Your task to perform on an android device: install app "Move to iOS" Image 0: 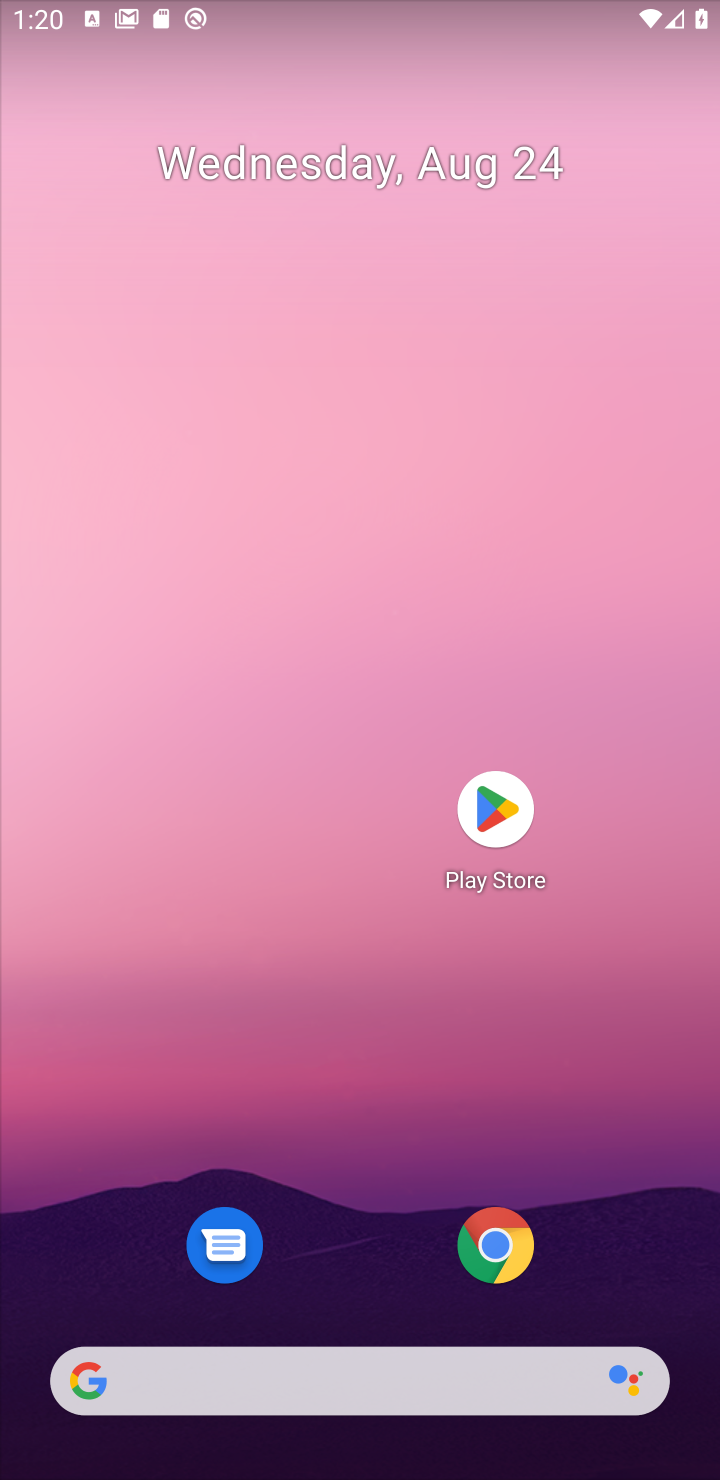
Step 0: press enter
Your task to perform on an android device: install app "Move to iOS" Image 1: 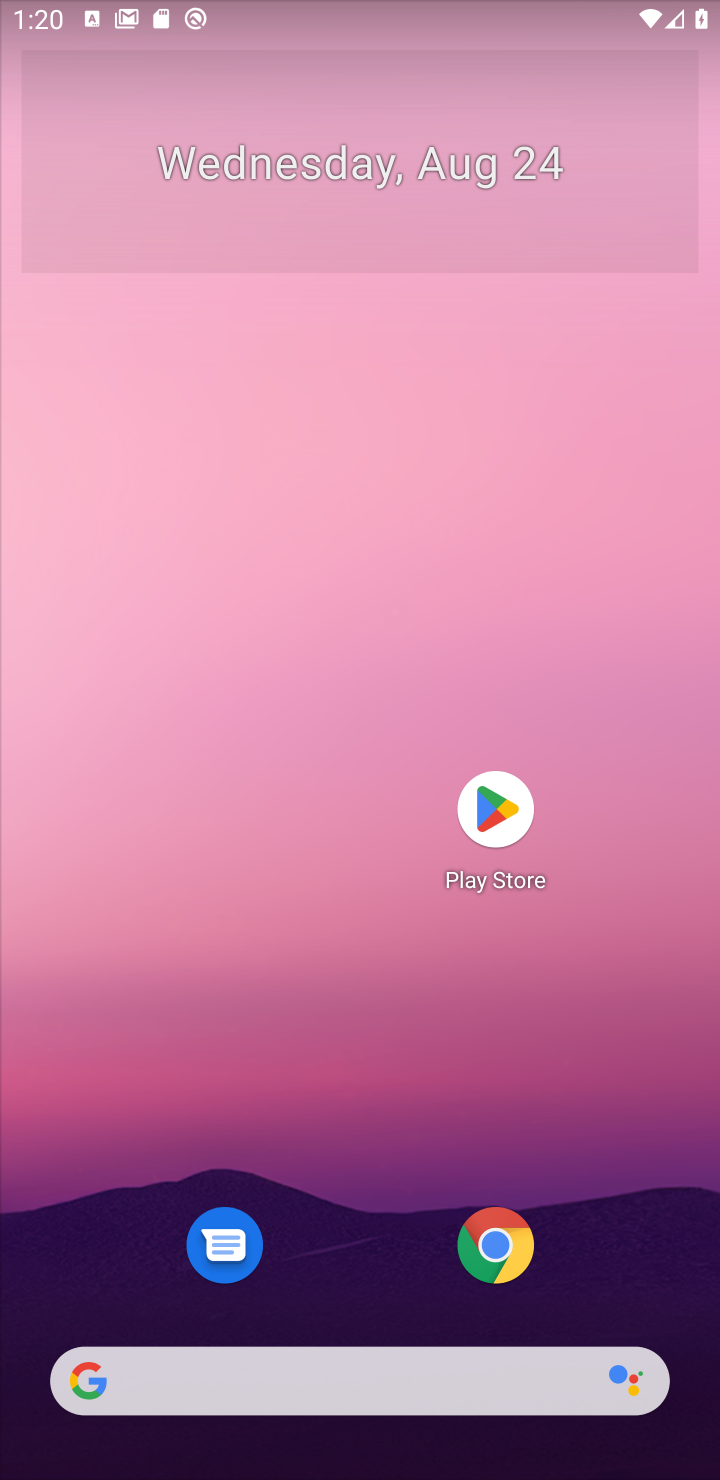
Step 1: click (520, 788)
Your task to perform on an android device: install app "Move to iOS" Image 2: 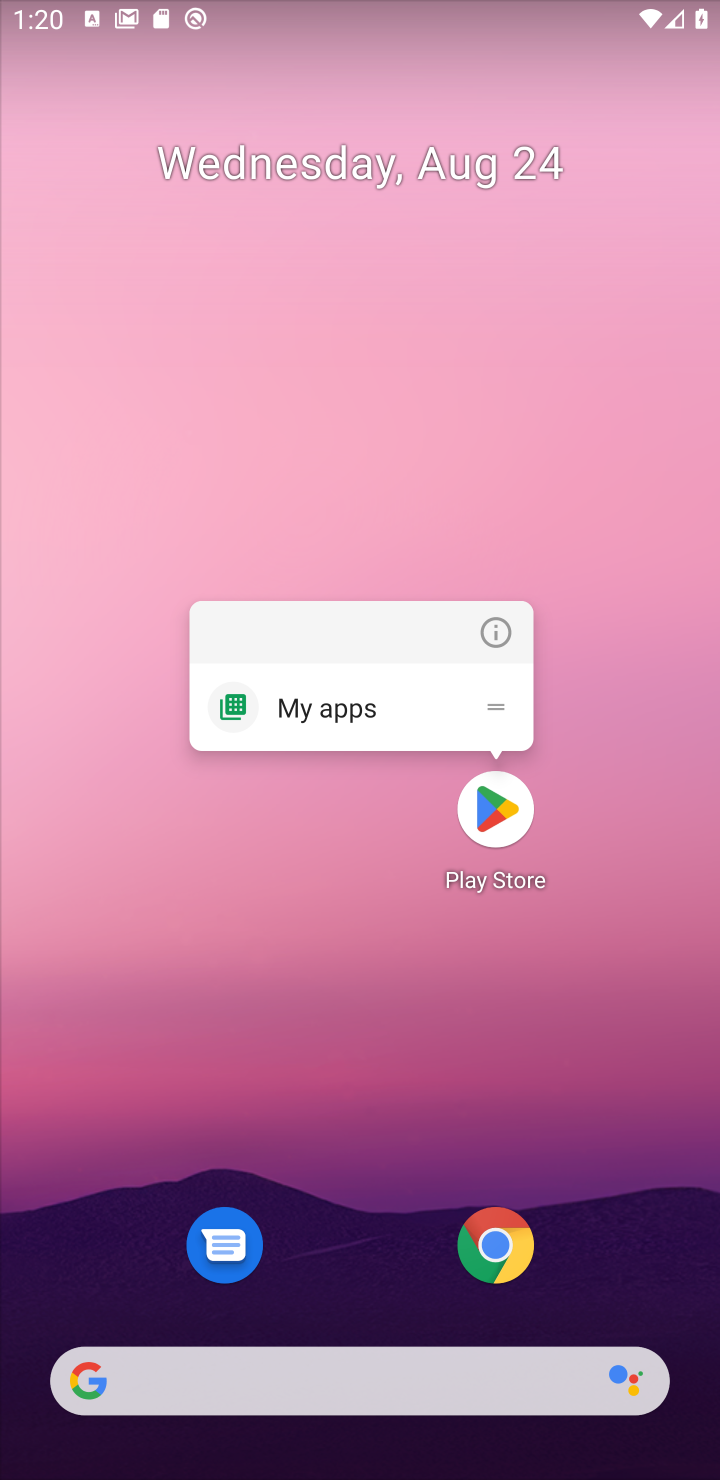
Step 2: click (507, 801)
Your task to perform on an android device: install app "Move to iOS" Image 3: 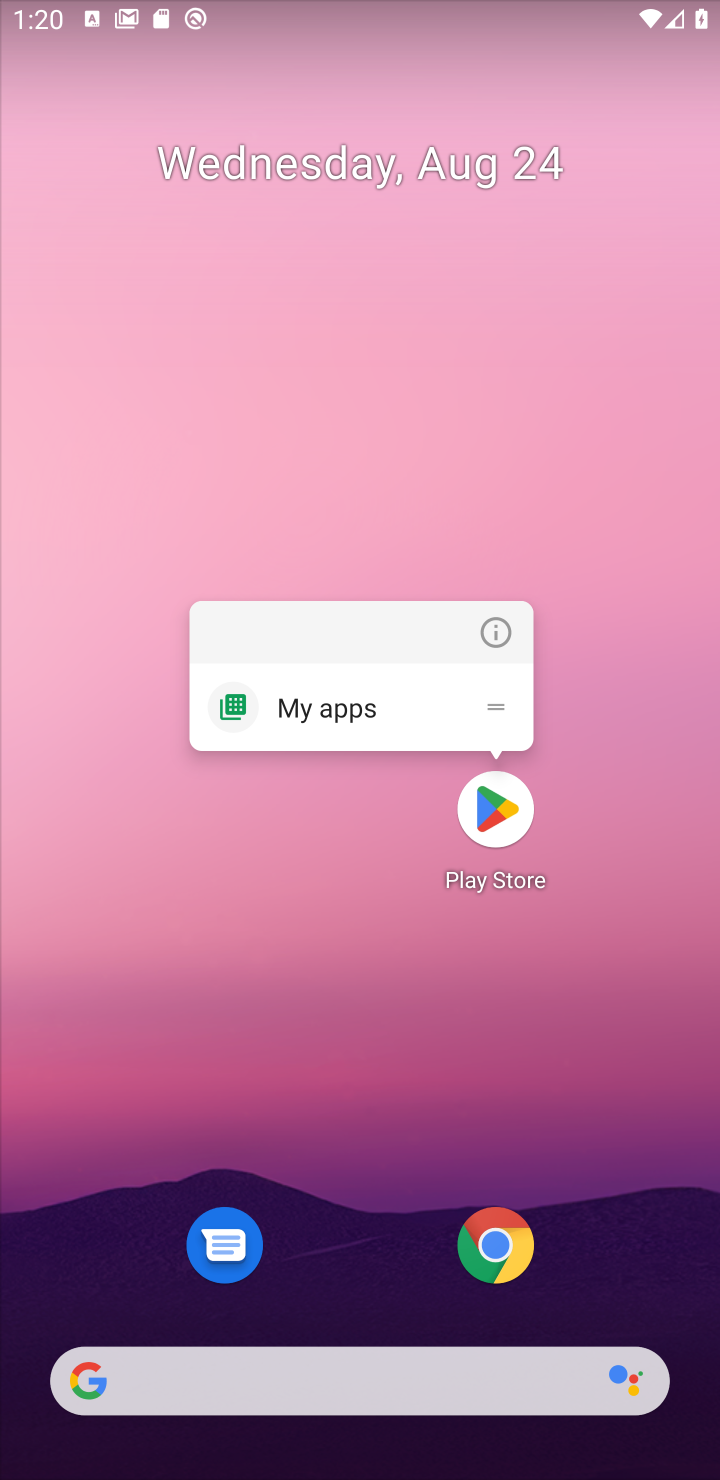
Step 3: click (490, 801)
Your task to perform on an android device: install app "Move to iOS" Image 4: 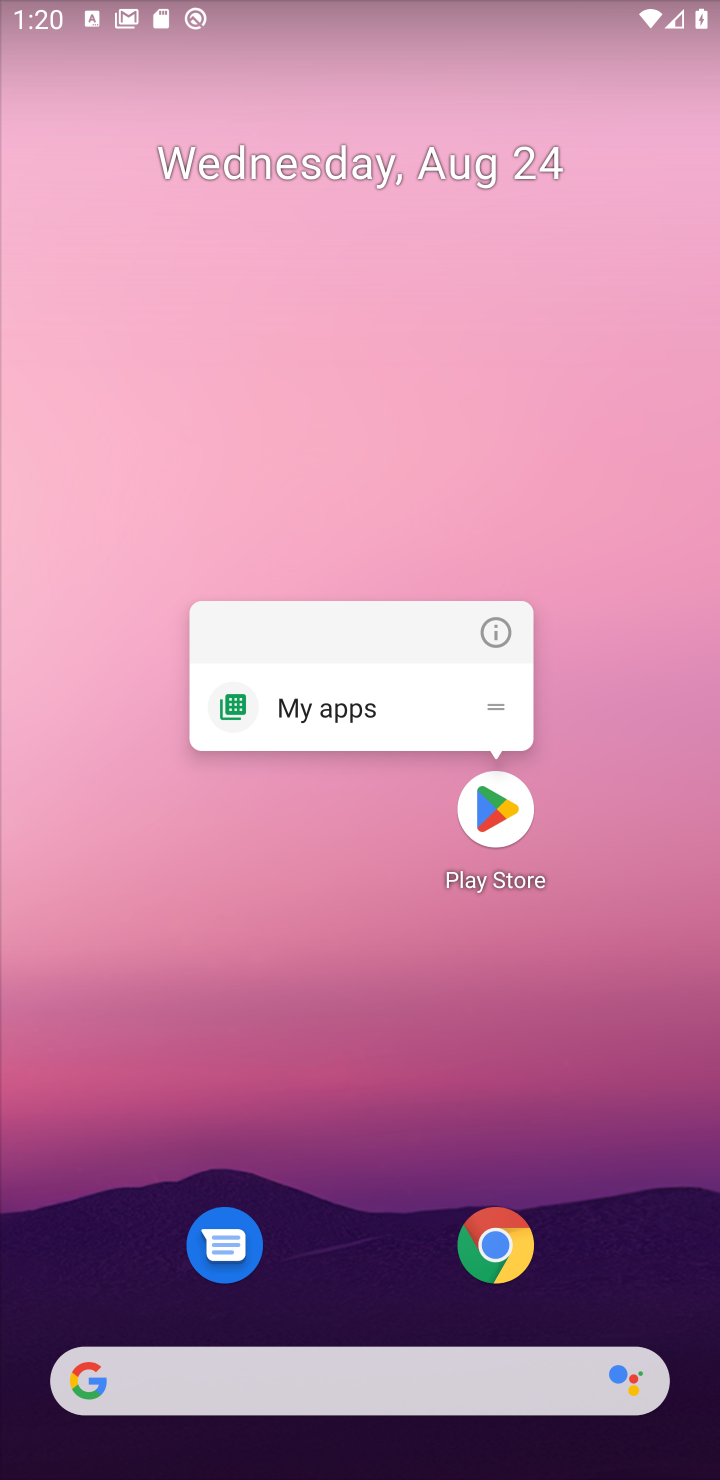
Step 4: click (487, 801)
Your task to perform on an android device: install app "Move to iOS" Image 5: 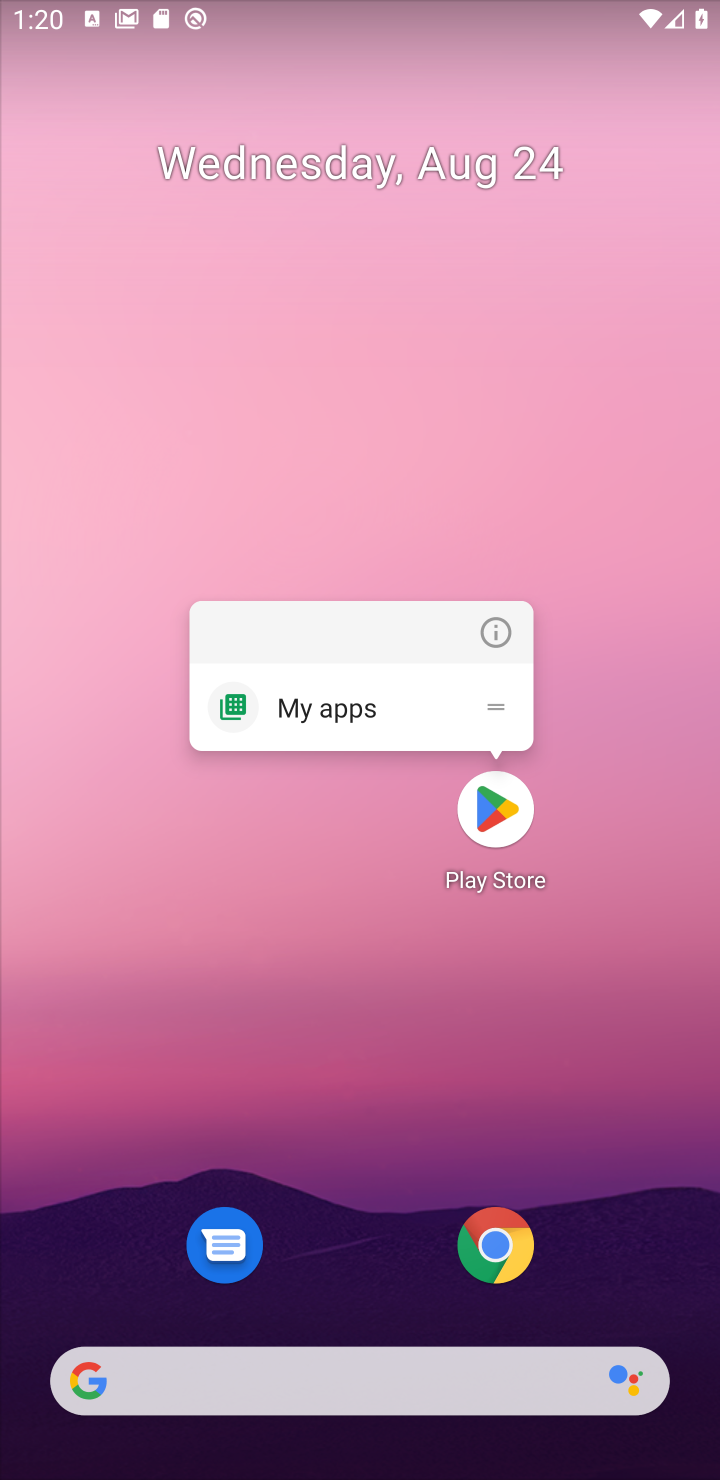
Step 5: click (487, 808)
Your task to perform on an android device: install app "Move to iOS" Image 6: 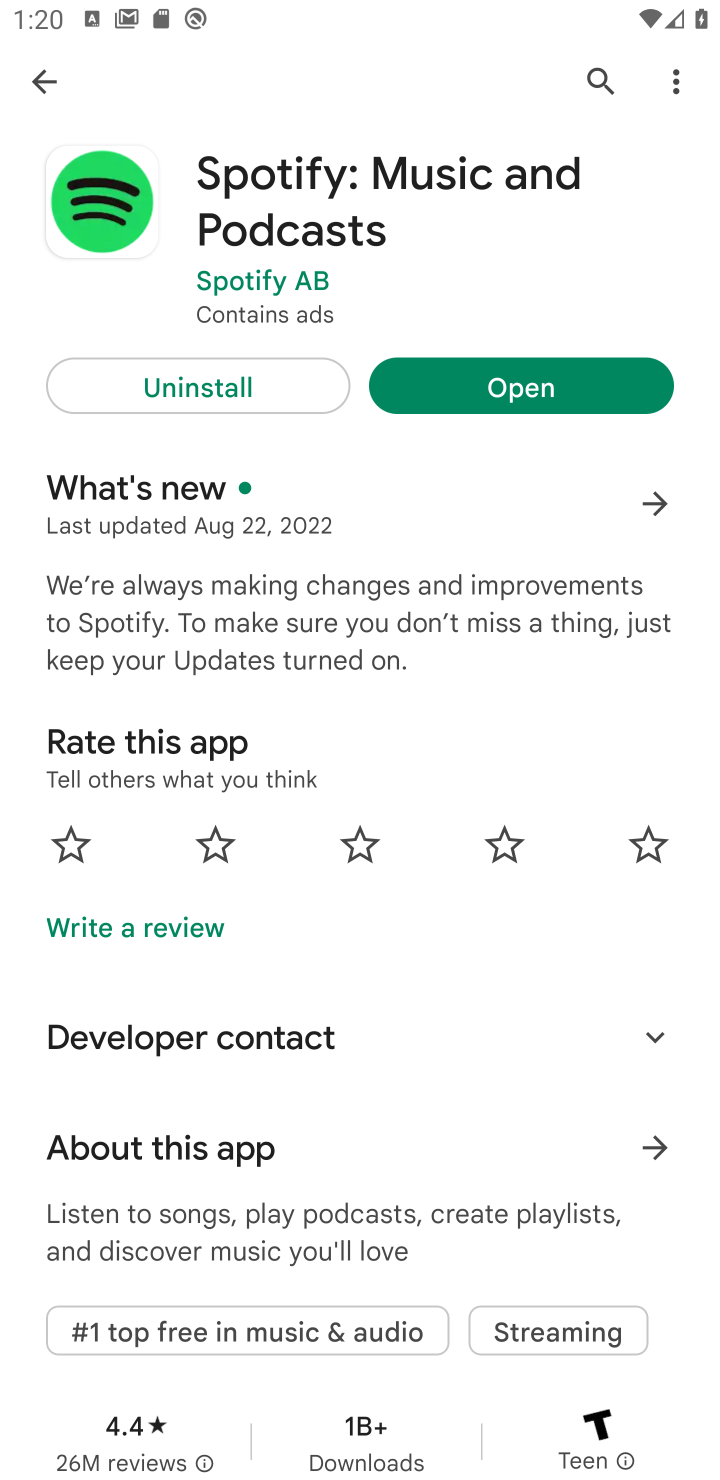
Step 6: click (608, 75)
Your task to perform on an android device: install app "Move to iOS" Image 7: 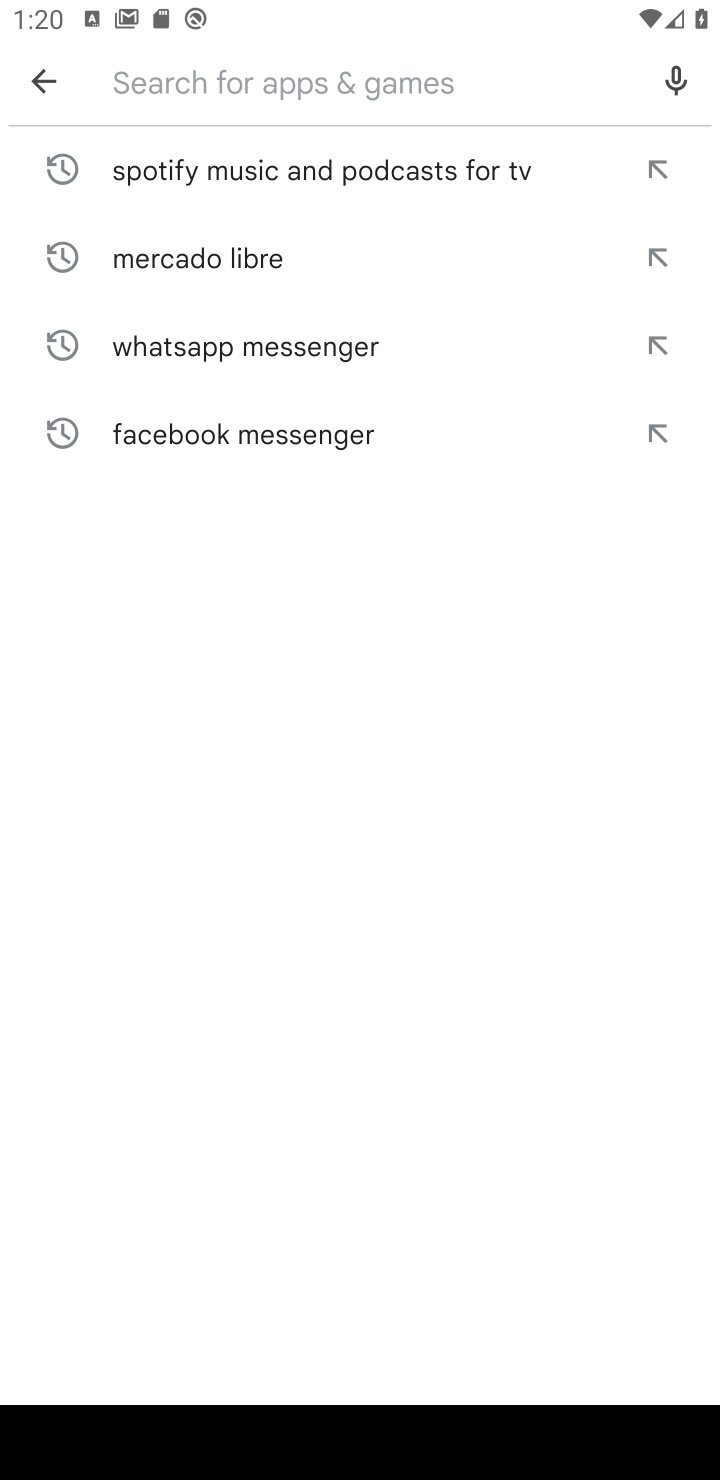
Step 7: type "Move to iOS"
Your task to perform on an android device: install app "Move to iOS" Image 8: 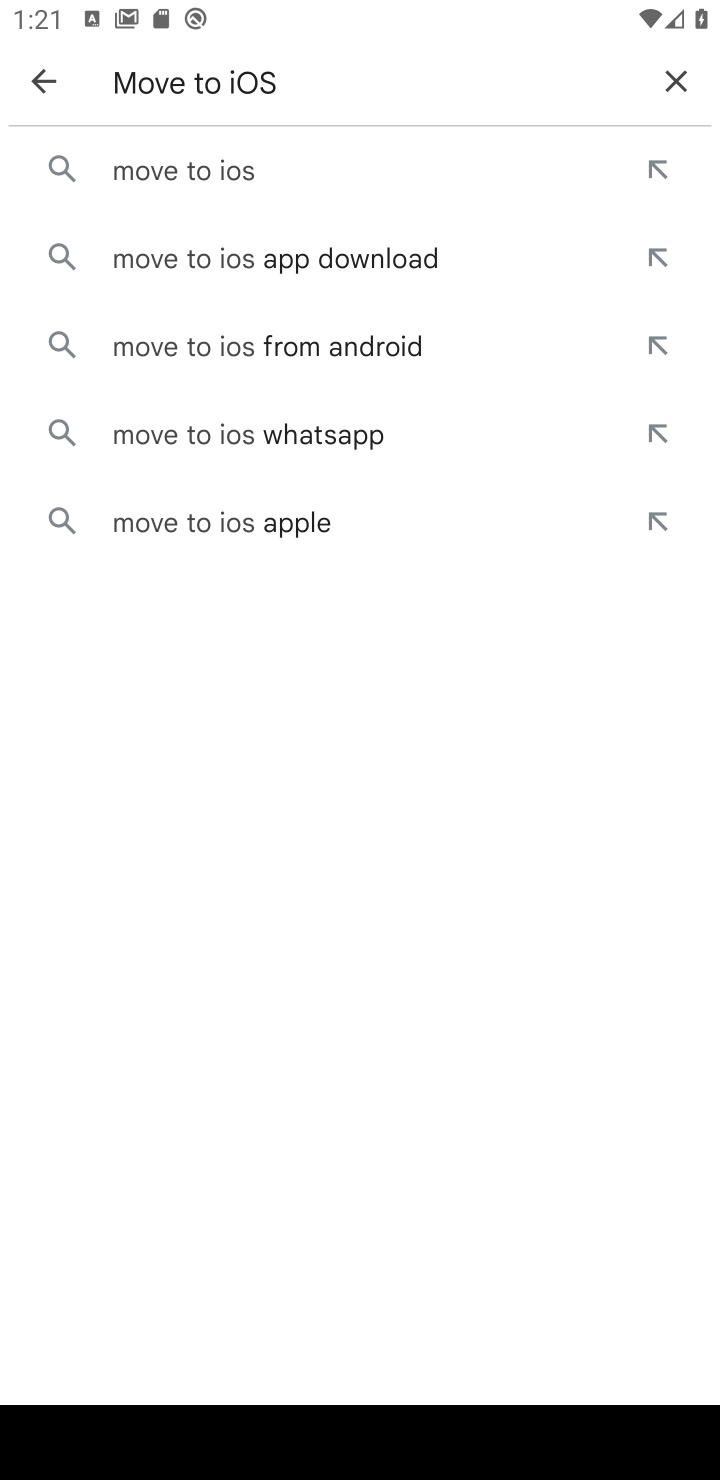
Step 8: click (244, 185)
Your task to perform on an android device: install app "Move to iOS" Image 9: 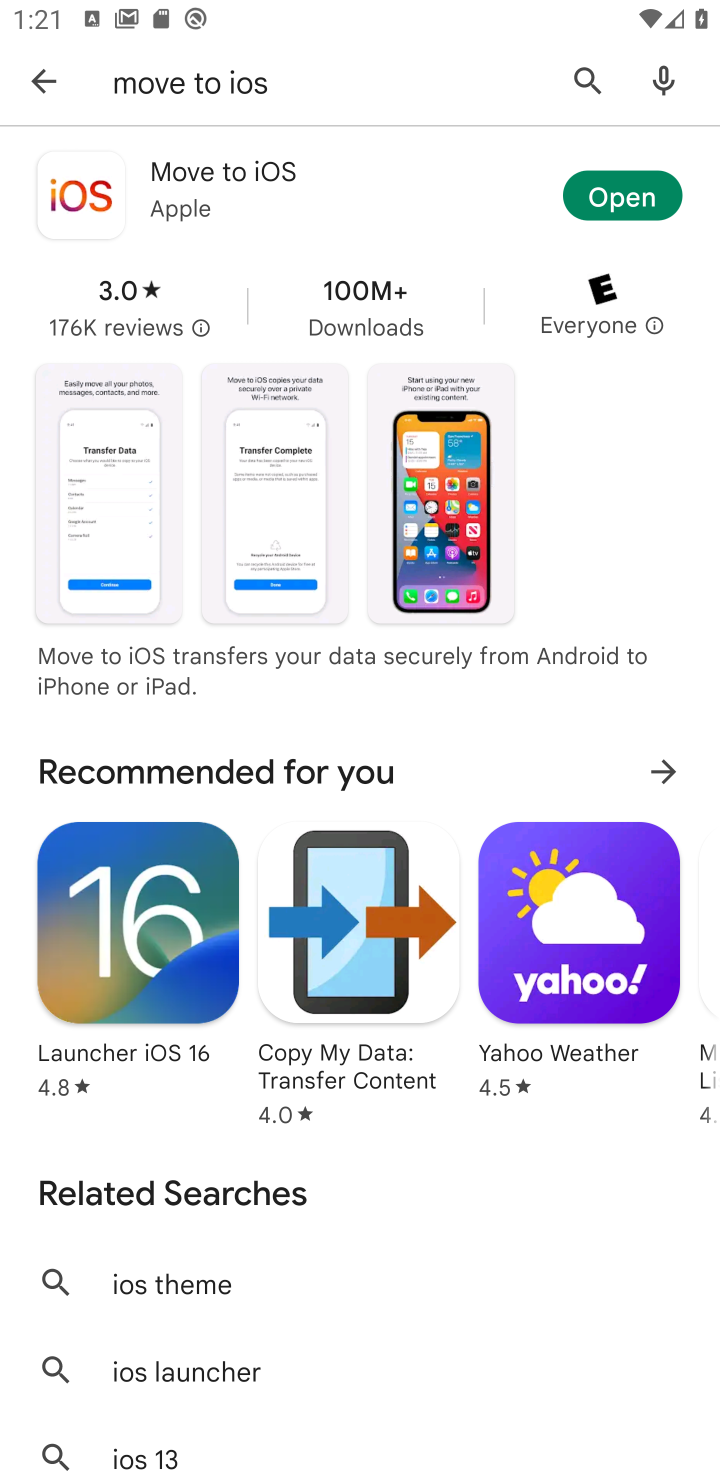
Step 9: click (653, 201)
Your task to perform on an android device: install app "Move to iOS" Image 10: 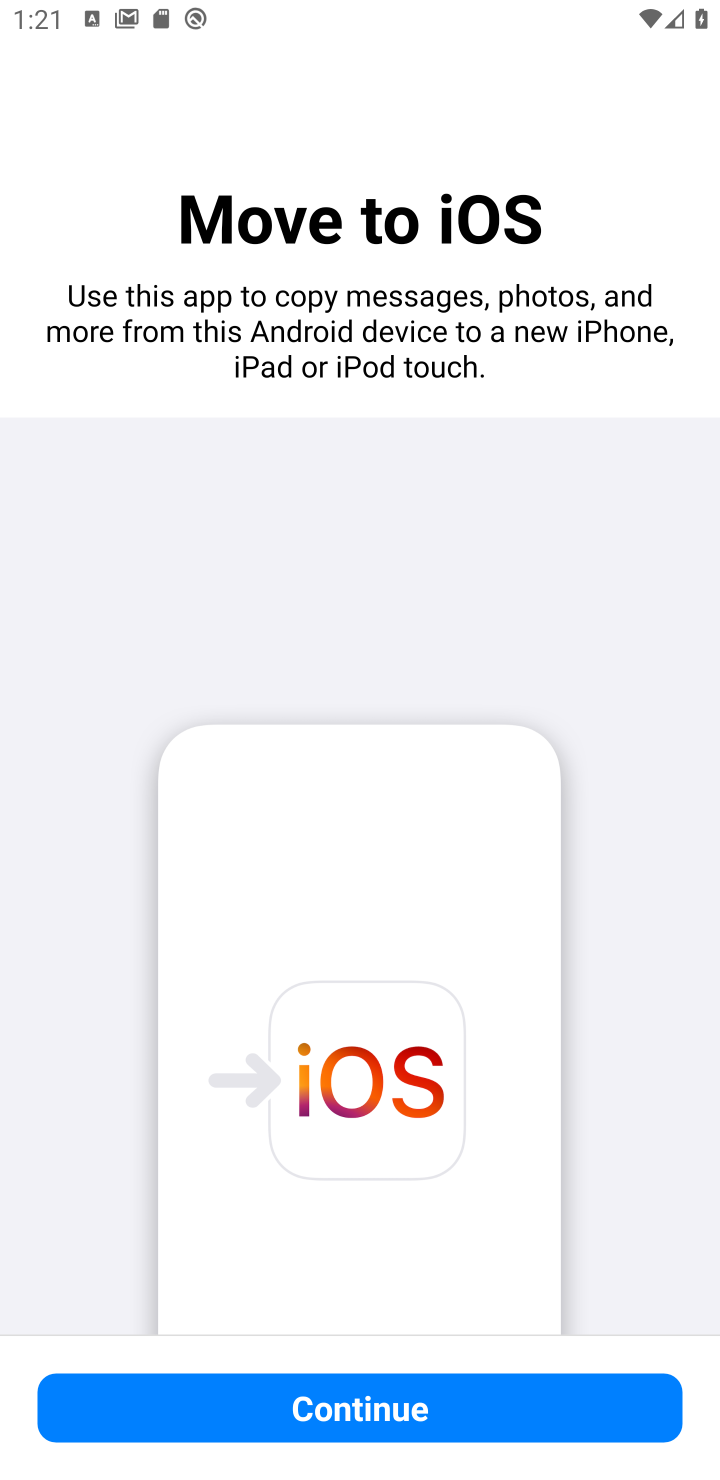
Step 10: task complete